Your task to perform on an android device: uninstall "Google Keep" Image 0: 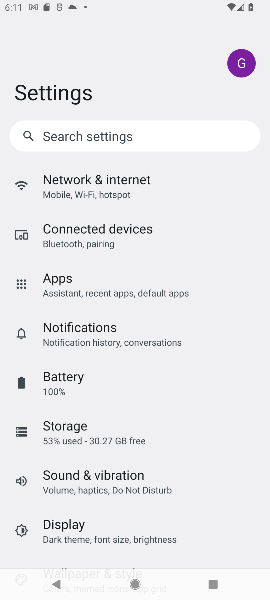
Step 0: press home button
Your task to perform on an android device: uninstall "Google Keep" Image 1: 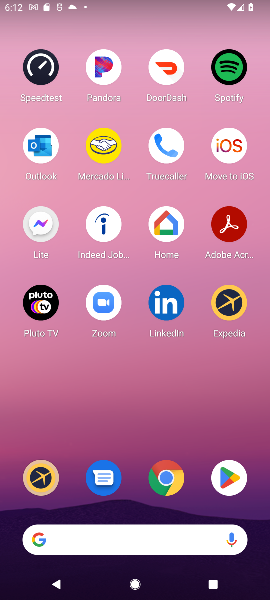
Step 1: click (218, 484)
Your task to perform on an android device: uninstall "Google Keep" Image 2: 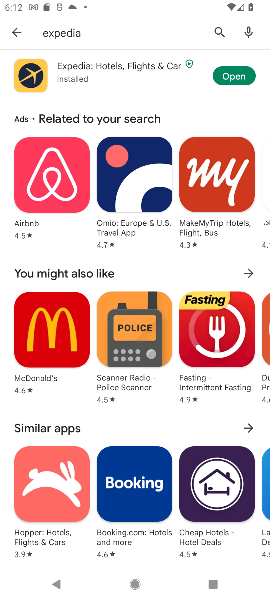
Step 2: click (213, 25)
Your task to perform on an android device: uninstall "Google Keep" Image 3: 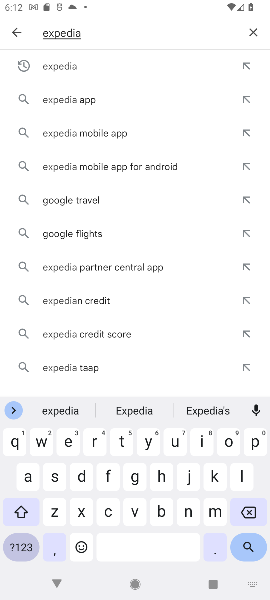
Step 3: click (253, 33)
Your task to perform on an android device: uninstall "Google Keep" Image 4: 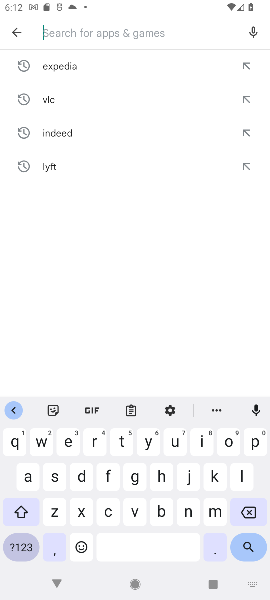
Step 4: type "google keep"
Your task to perform on an android device: uninstall "Google Keep" Image 5: 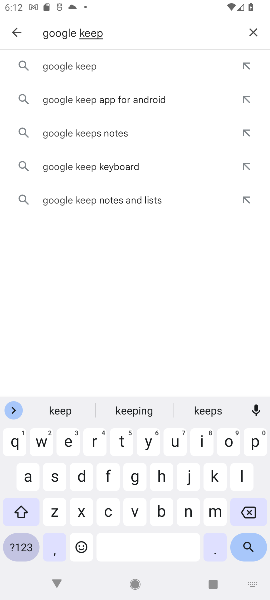
Step 5: click (217, 60)
Your task to perform on an android device: uninstall "Google Keep" Image 6: 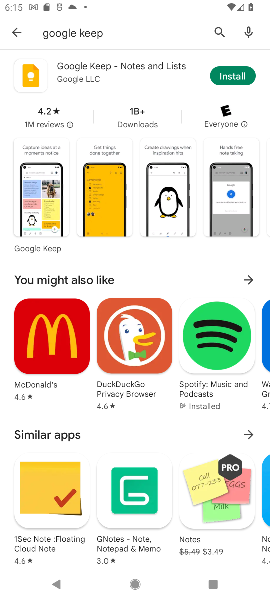
Step 6: task complete